Your task to perform on an android device: find snoozed emails in the gmail app Image 0: 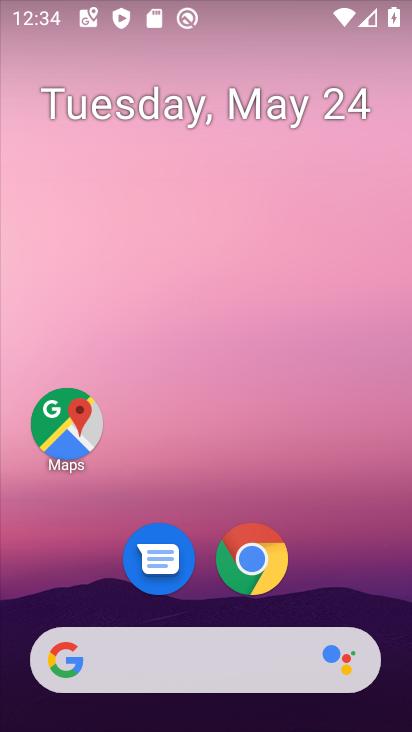
Step 0: drag from (337, 708) to (300, 131)
Your task to perform on an android device: find snoozed emails in the gmail app Image 1: 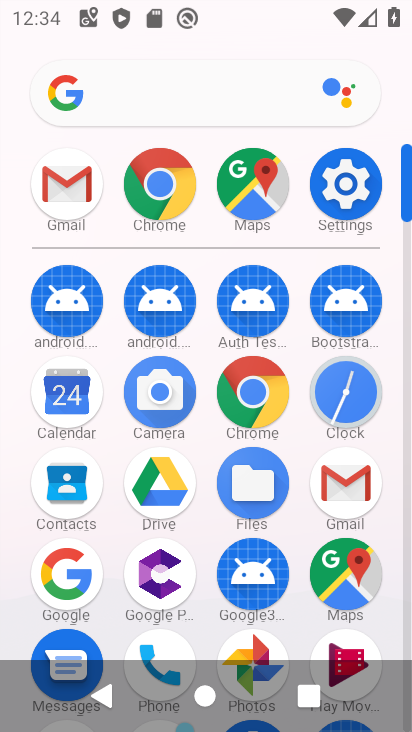
Step 1: click (343, 471)
Your task to perform on an android device: find snoozed emails in the gmail app Image 2: 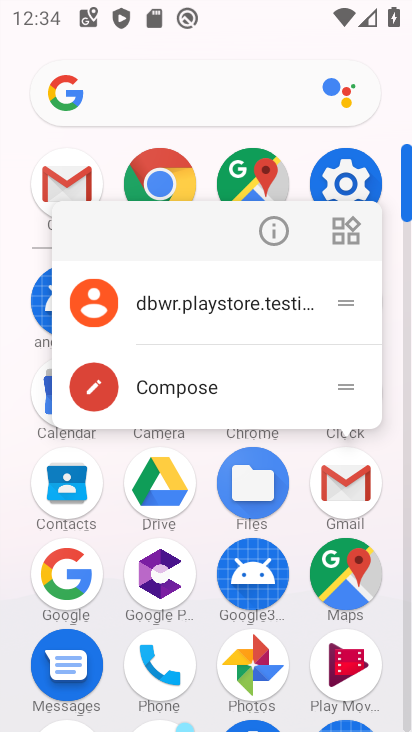
Step 2: click (334, 466)
Your task to perform on an android device: find snoozed emails in the gmail app Image 3: 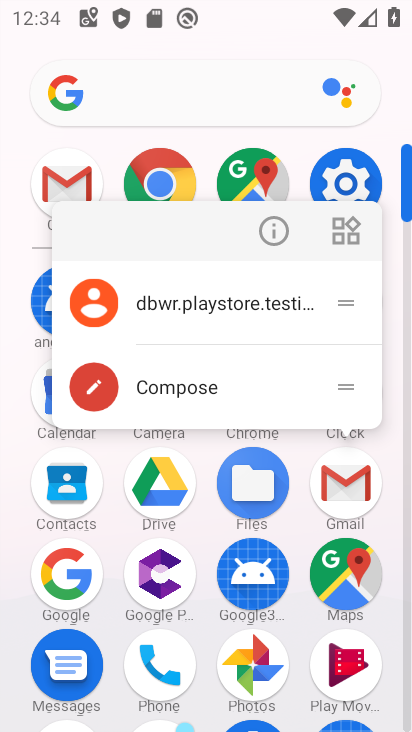
Step 3: click (352, 476)
Your task to perform on an android device: find snoozed emails in the gmail app Image 4: 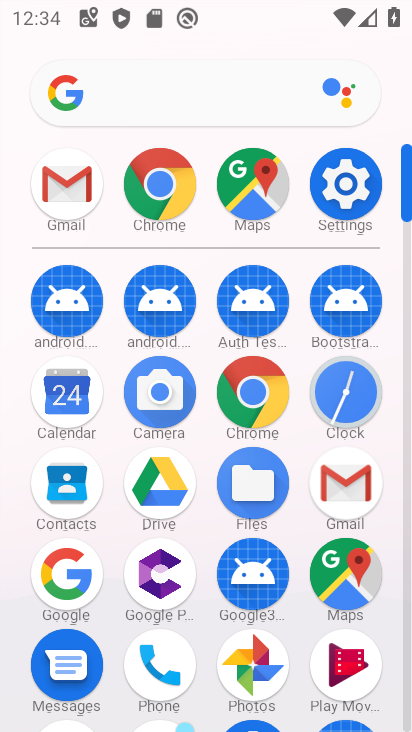
Step 4: click (360, 470)
Your task to perform on an android device: find snoozed emails in the gmail app Image 5: 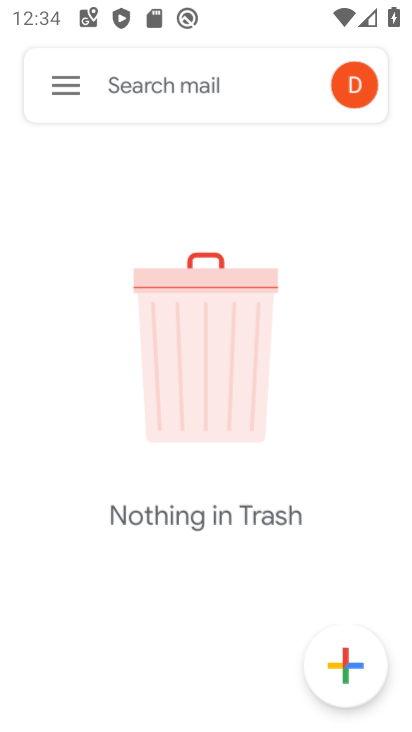
Step 5: click (361, 478)
Your task to perform on an android device: find snoozed emails in the gmail app Image 6: 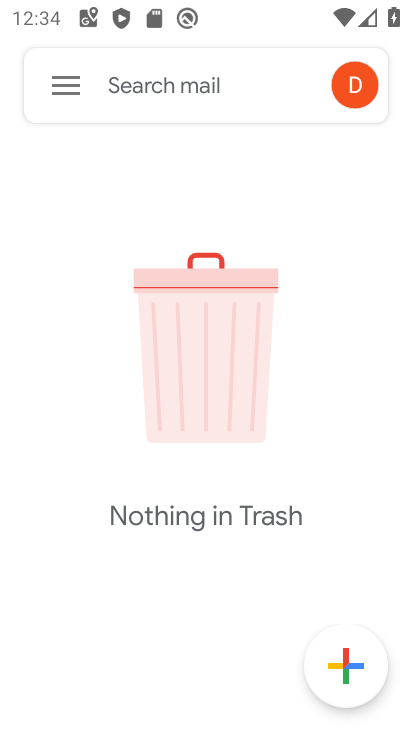
Step 6: click (75, 89)
Your task to perform on an android device: find snoozed emails in the gmail app Image 7: 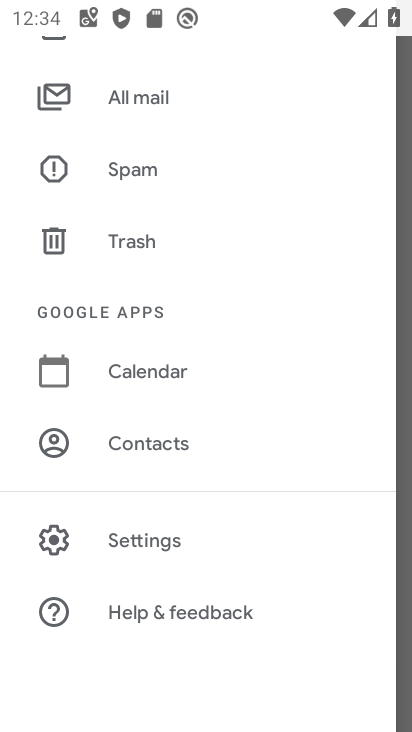
Step 7: drag from (161, 138) to (161, 585)
Your task to perform on an android device: find snoozed emails in the gmail app Image 8: 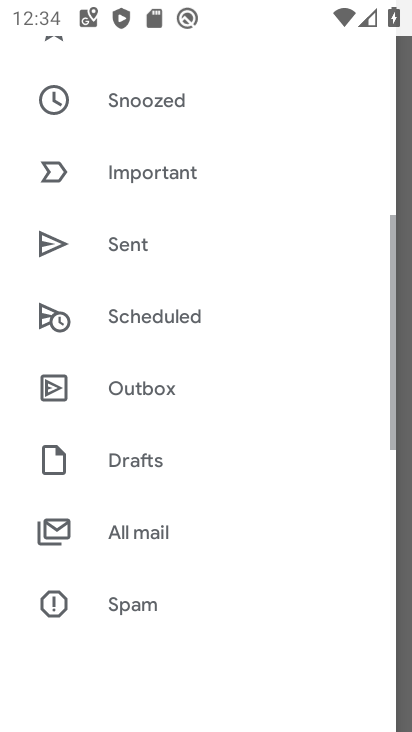
Step 8: drag from (122, 186) to (185, 591)
Your task to perform on an android device: find snoozed emails in the gmail app Image 9: 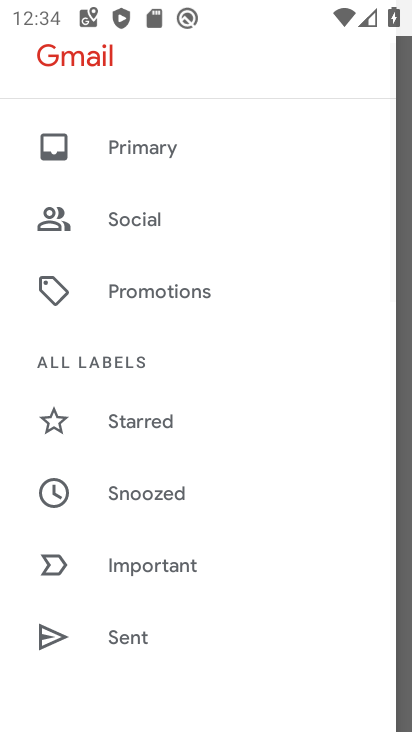
Step 9: click (156, 488)
Your task to perform on an android device: find snoozed emails in the gmail app Image 10: 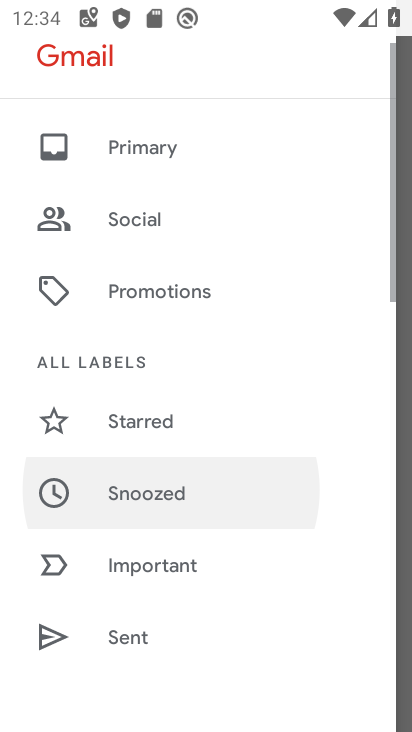
Step 10: click (156, 488)
Your task to perform on an android device: find snoozed emails in the gmail app Image 11: 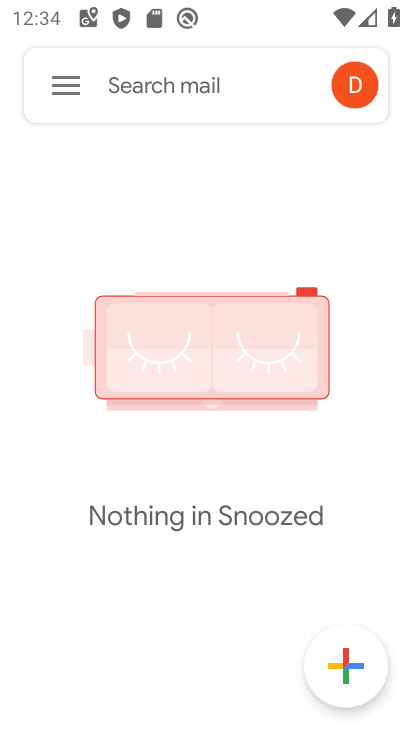
Step 11: task complete